Your task to perform on an android device: turn off notifications in google photos Image 0: 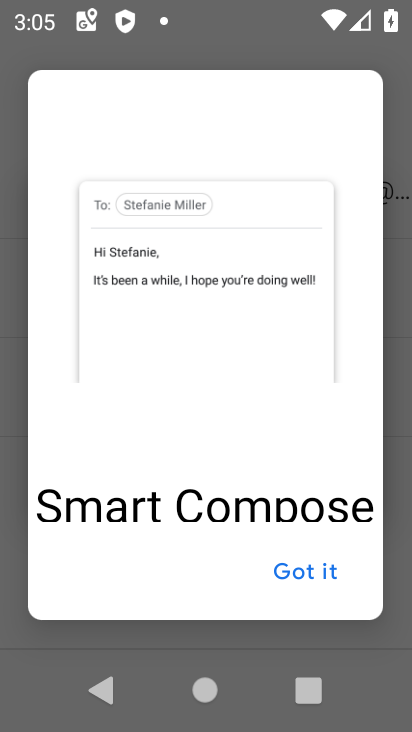
Step 0: press home button
Your task to perform on an android device: turn off notifications in google photos Image 1: 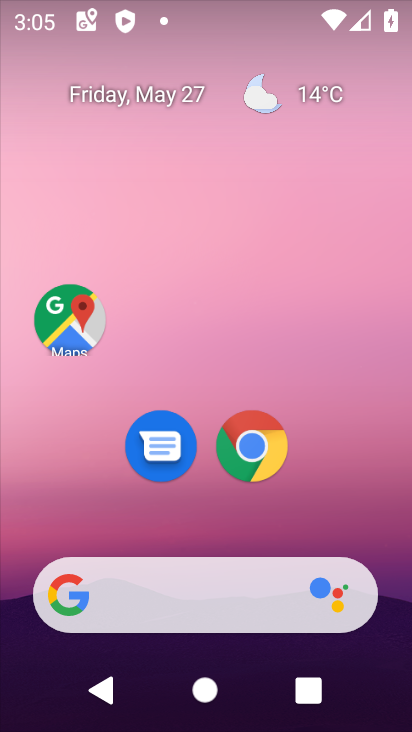
Step 1: drag from (203, 536) to (303, 166)
Your task to perform on an android device: turn off notifications in google photos Image 2: 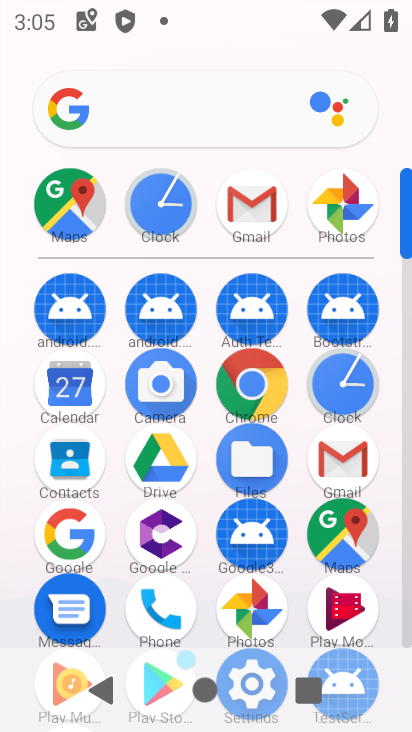
Step 2: click (245, 605)
Your task to perform on an android device: turn off notifications in google photos Image 3: 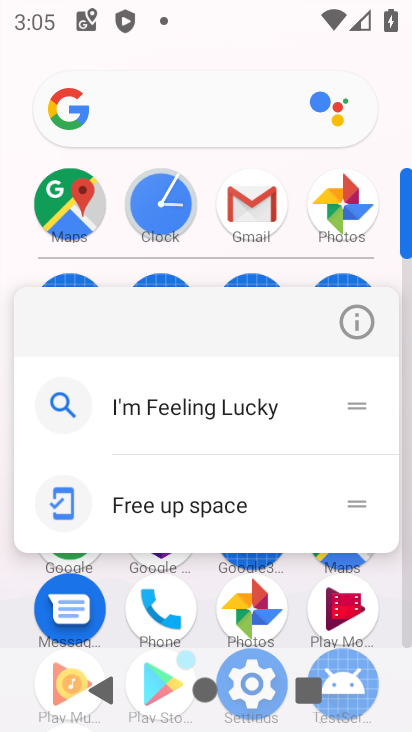
Step 3: click (245, 605)
Your task to perform on an android device: turn off notifications in google photos Image 4: 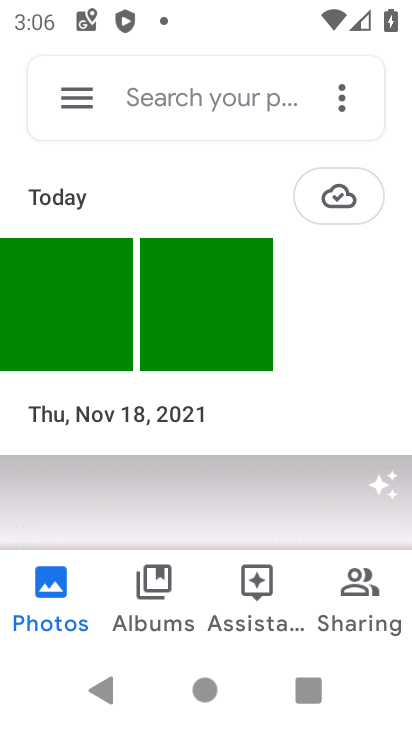
Step 4: click (69, 98)
Your task to perform on an android device: turn off notifications in google photos Image 5: 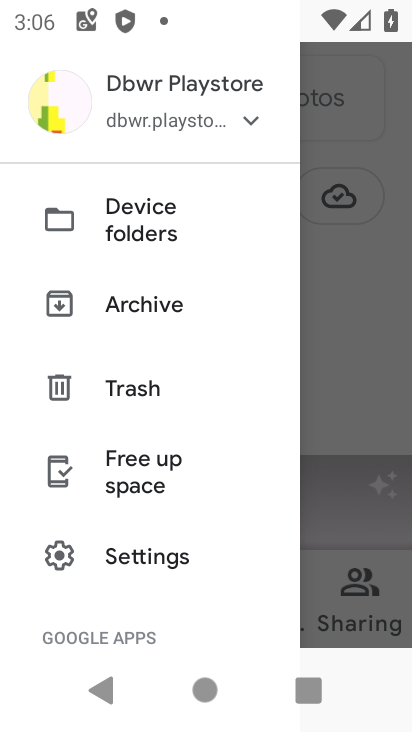
Step 5: click (162, 562)
Your task to perform on an android device: turn off notifications in google photos Image 6: 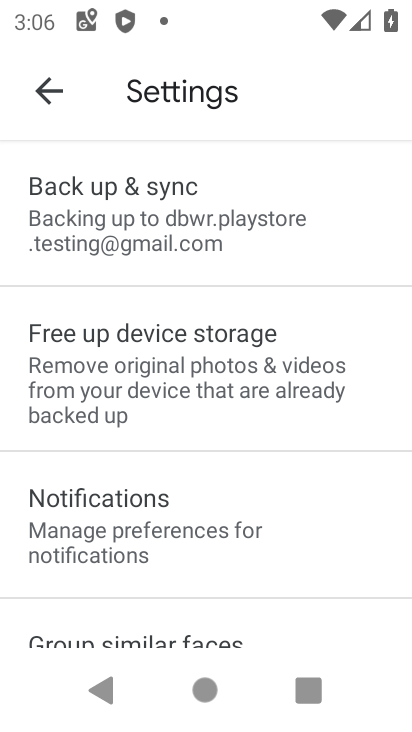
Step 6: click (146, 525)
Your task to perform on an android device: turn off notifications in google photos Image 7: 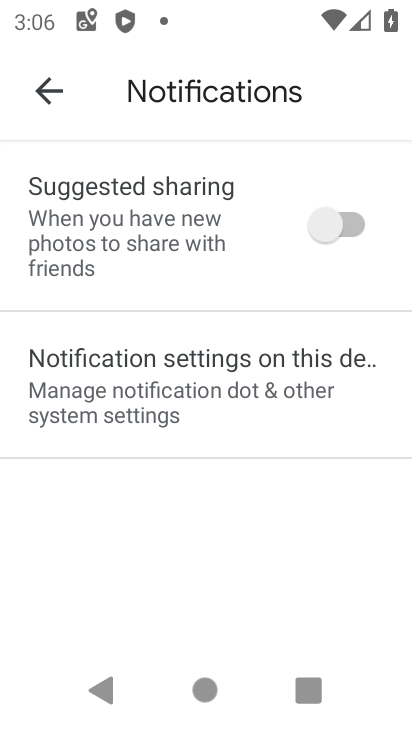
Step 7: click (153, 390)
Your task to perform on an android device: turn off notifications in google photos Image 8: 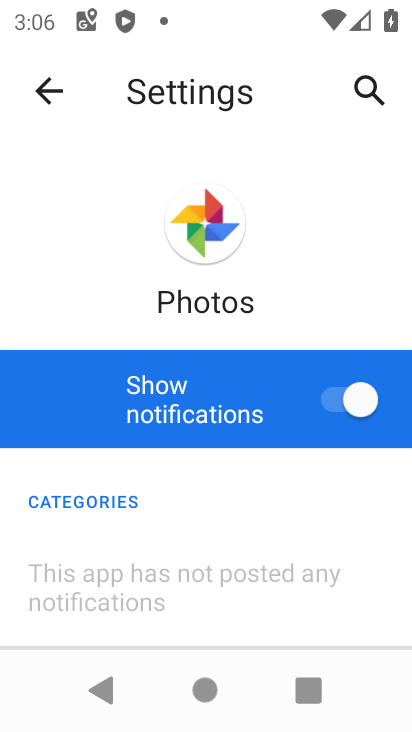
Step 8: click (336, 401)
Your task to perform on an android device: turn off notifications in google photos Image 9: 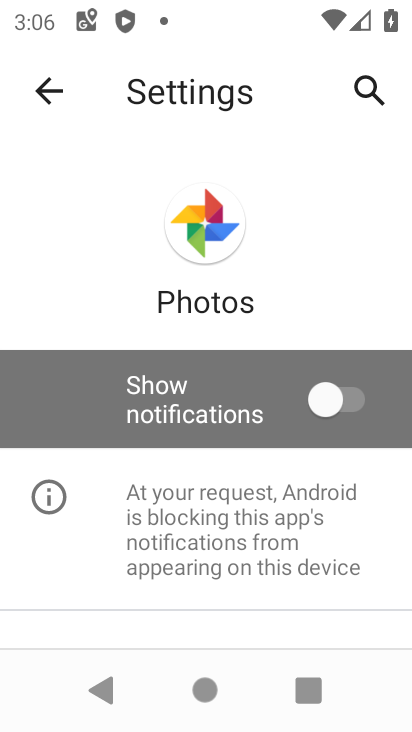
Step 9: task complete